Your task to perform on an android device: What's the weather going to be tomorrow? Image 0: 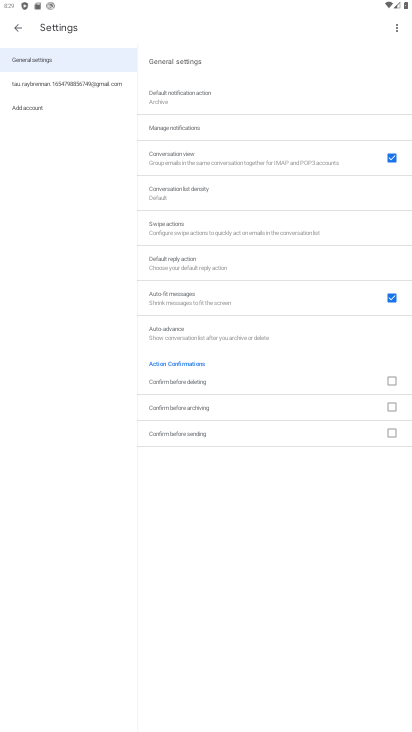
Step 0: press home button
Your task to perform on an android device: What's the weather going to be tomorrow? Image 1: 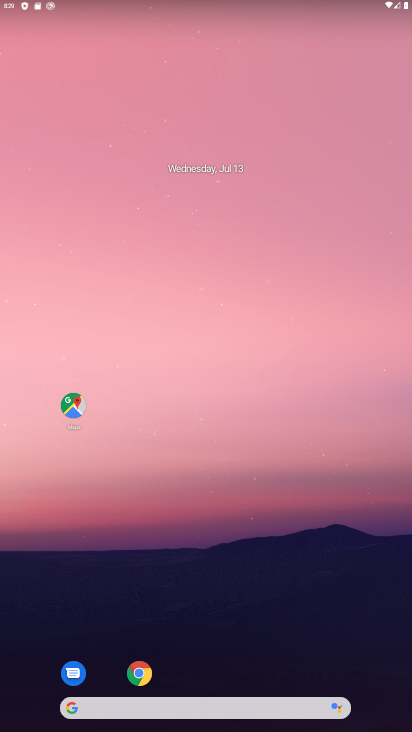
Step 1: click (198, 711)
Your task to perform on an android device: What's the weather going to be tomorrow? Image 2: 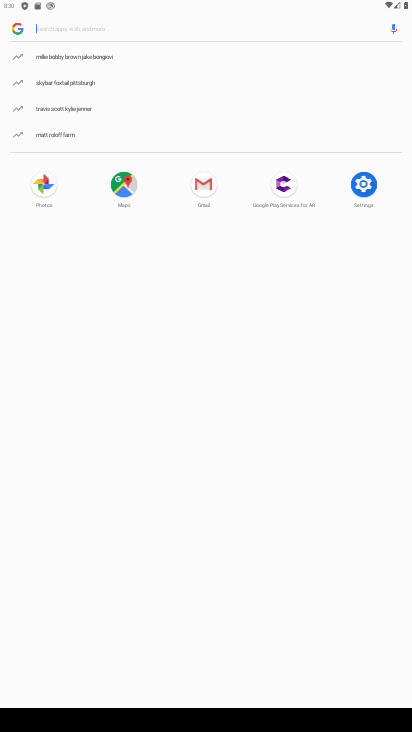
Step 2: type "tomorrow weather"
Your task to perform on an android device: What's the weather going to be tomorrow? Image 3: 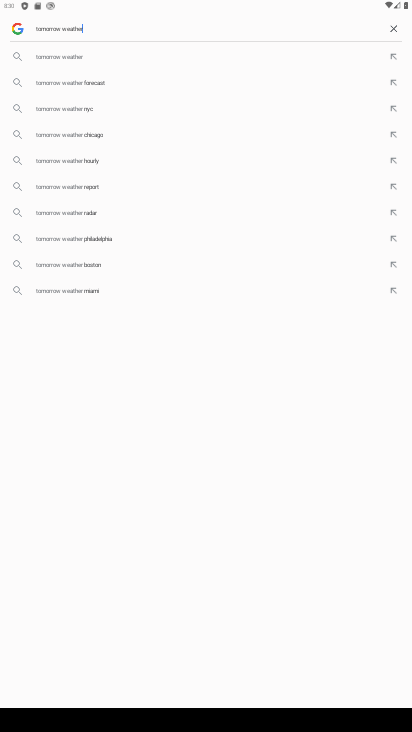
Step 3: click (36, 59)
Your task to perform on an android device: What's the weather going to be tomorrow? Image 4: 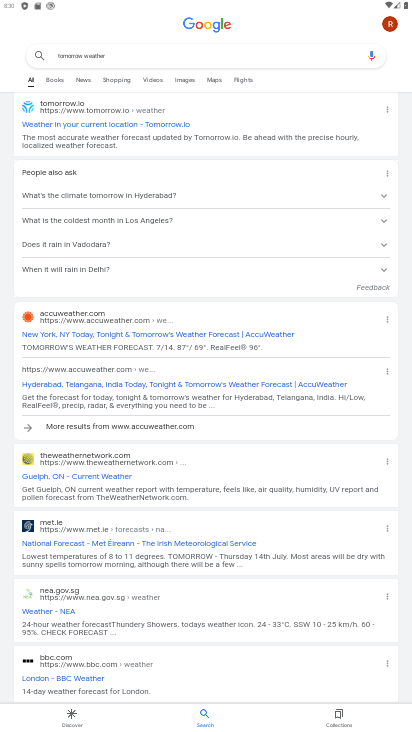
Step 4: task complete